Your task to perform on an android device: Open internet settings Image 0: 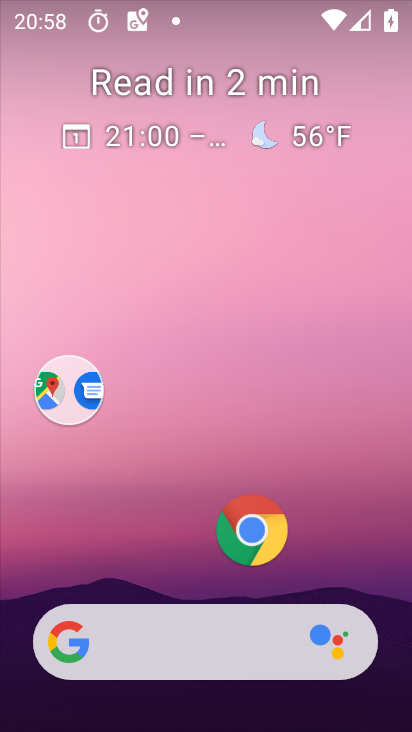
Step 0: drag from (176, 507) to (215, 46)
Your task to perform on an android device: Open internet settings Image 1: 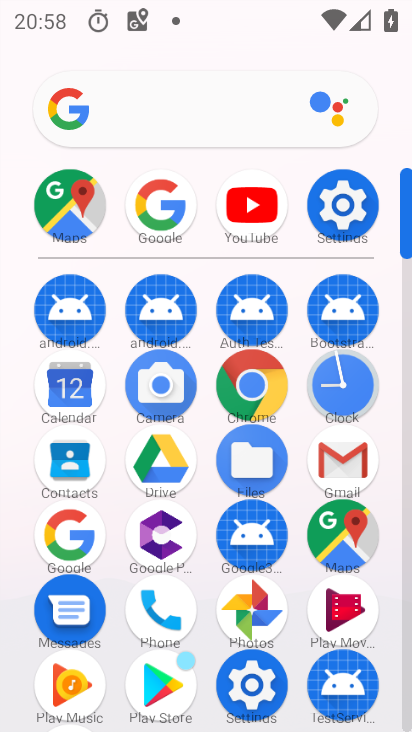
Step 1: click (346, 203)
Your task to perform on an android device: Open internet settings Image 2: 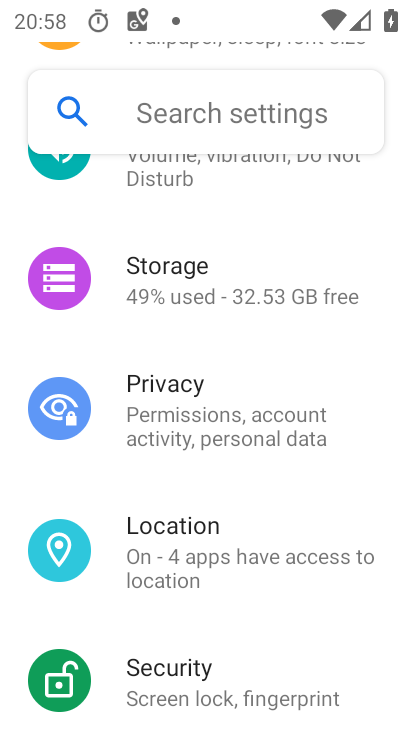
Step 2: drag from (238, 201) to (315, 726)
Your task to perform on an android device: Open internet settings Image 3: 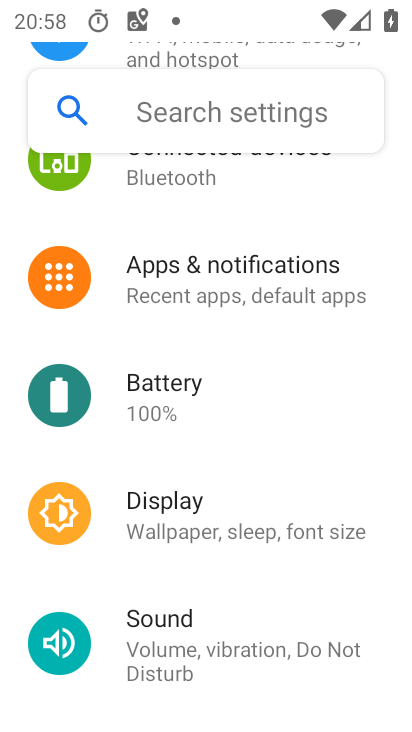
Step 3: drag from (187, 240) to (204, 705)
Your task to perform on an android device: Open internet settings Image 4: 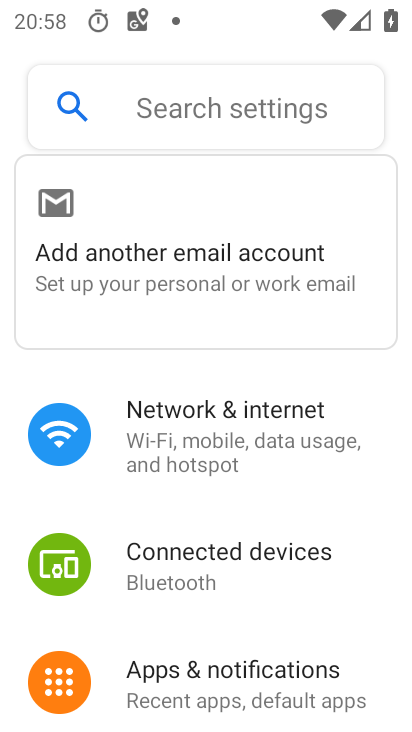
Step 4: click (258, 412)
Your task to perform on an android device: Open internet settings Image 5: 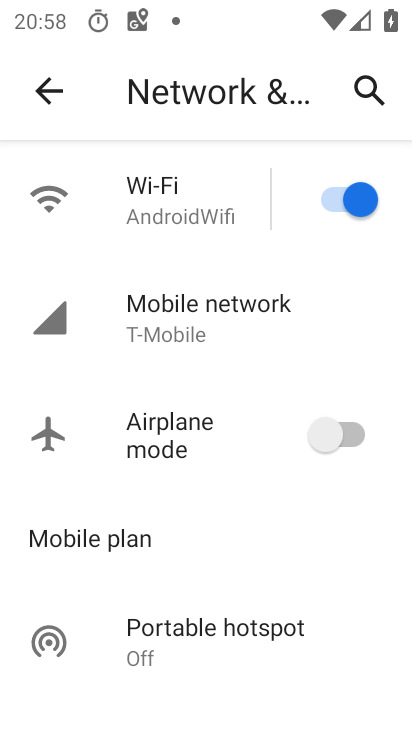
Step 5: click (144, 205)
Your task to perform on an android device: Open internet settings Image 6: 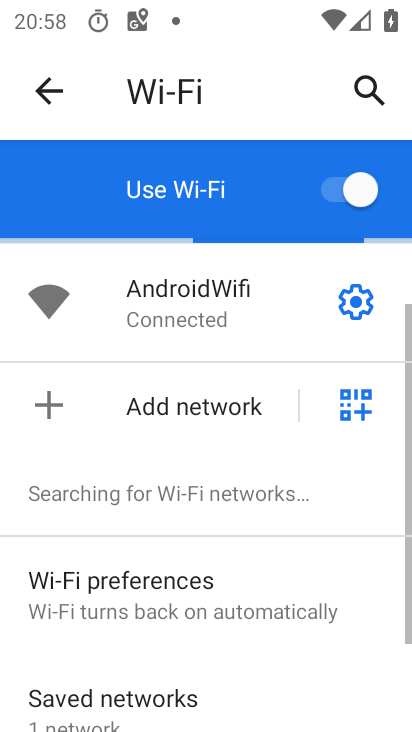
Step 6: click (155, 303)
Your task to perform on an android device: Open internet settings Image 7: 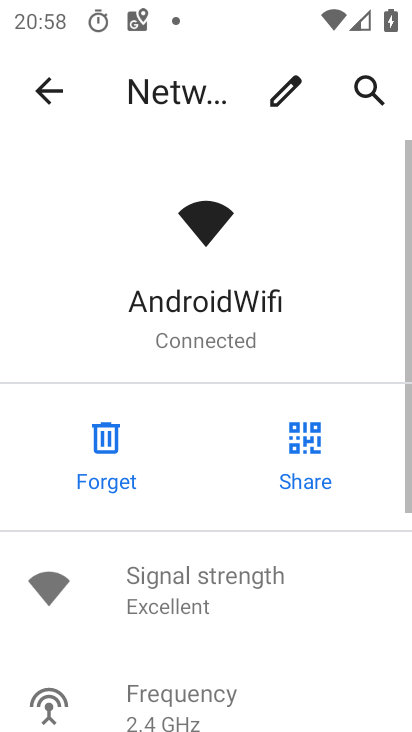
Step 7: task complete